Your task to perform on an android device: change keyboard looks Image 0: 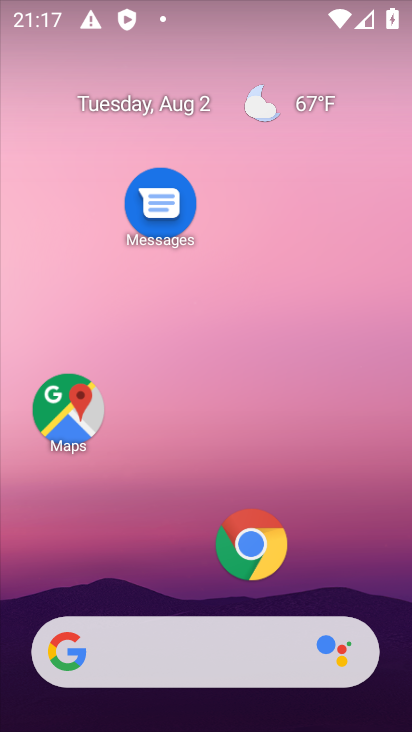
Step 0: drag from (180, 577) to (200, 213)
Your task to perform on an android device: change keyboard looks Image 1: 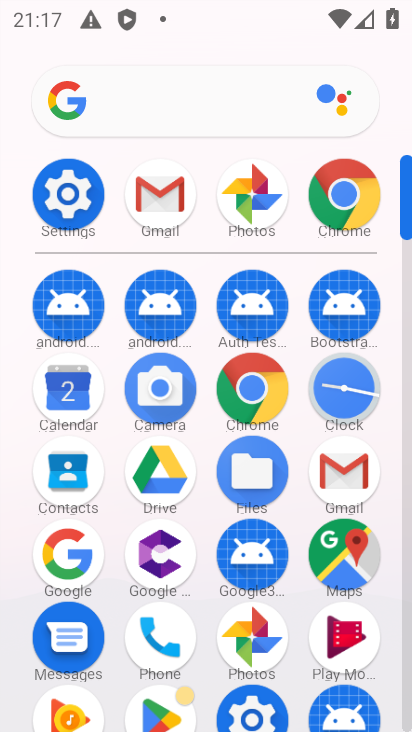
Step 1: click (72, 215)
Your task to perform on an android device: change keyboard looks Image 2: 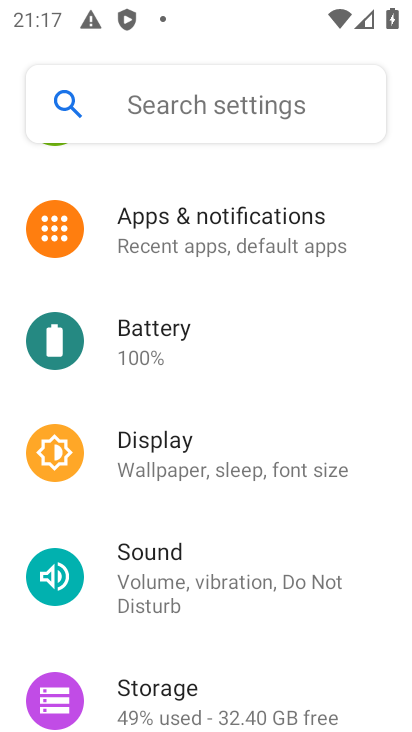
Step 2: drag from (188, 648) to (211, 245)
Your task to perform on an android device: change keyboard looks Image 3: 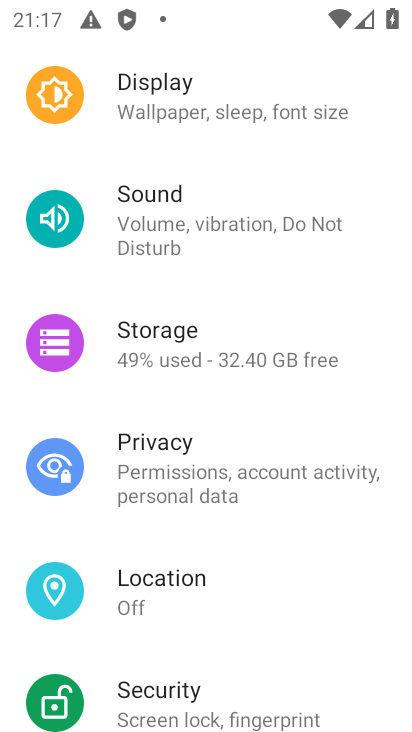
Step 3: drag from (252, 615) to (234, 251)
Your task to perform on an android device: change keyboard looks Image 4: 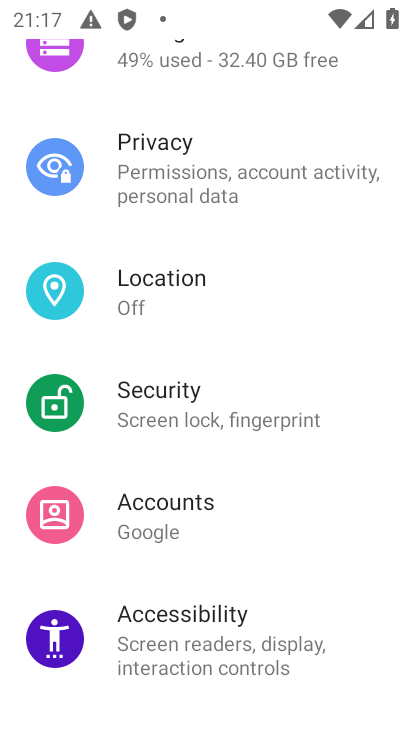
Step 4: drag from (189, 645) to (201, 319)
Your task to perform on an android device: change keyboard looks Image 5: 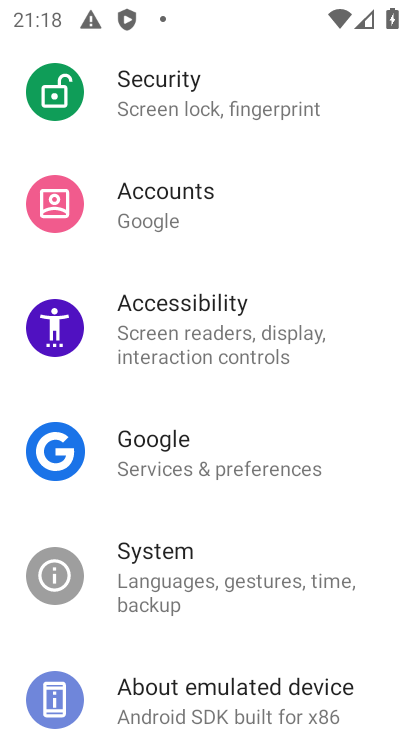
Step 5: drag from (196, 684) to (205, 321)
Your task to perform on an android device: change keyboard looks Image 6: 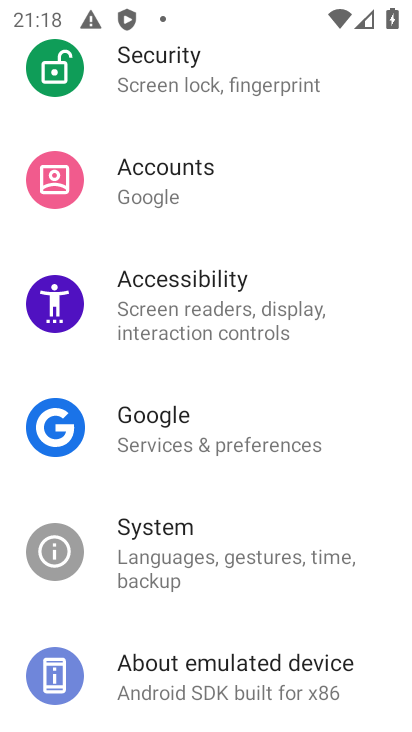
Step 6: click (165, 547)
Your task to perform on an android device: change keyboard looks Image 7: 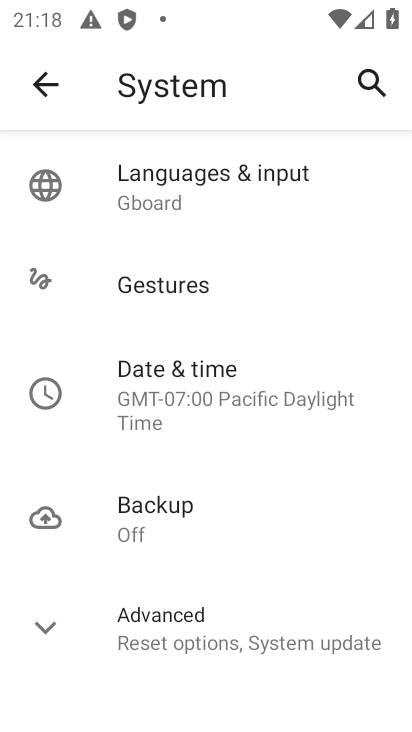
Step 7: drag from (182, 640) to (219, 312)
Your task to perform on an android device: change keyboard looks Image 8: 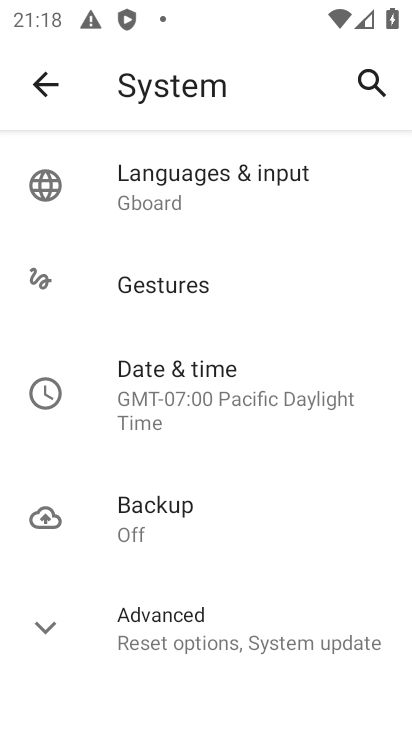
Step 8: drag from (193, 652) to (238, 289)
Your task to perform on an android device: change keyboard looks Image 9: 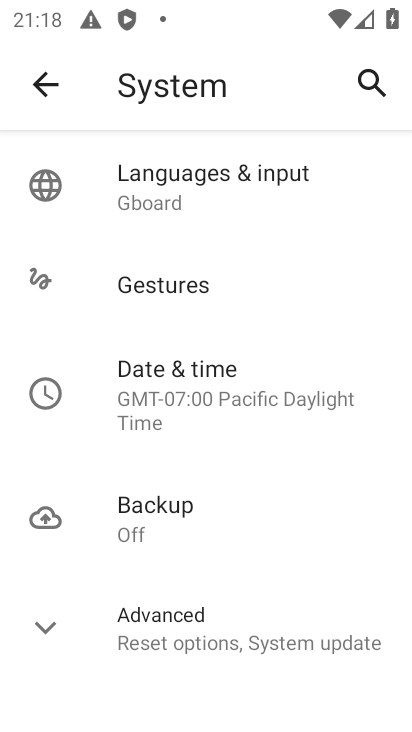
Step 9: click (192, 201)
Your task to perform on an android device: change keyboard looks Image 10: 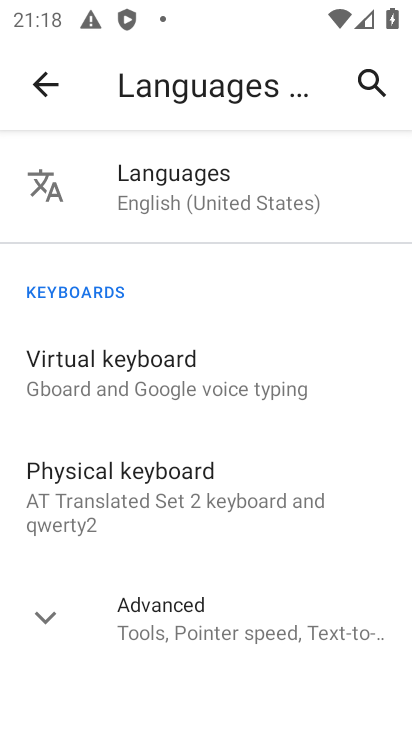
Step 10: click (137, 357)
Your task to perform on an android device: change keyboard looks Image 11: 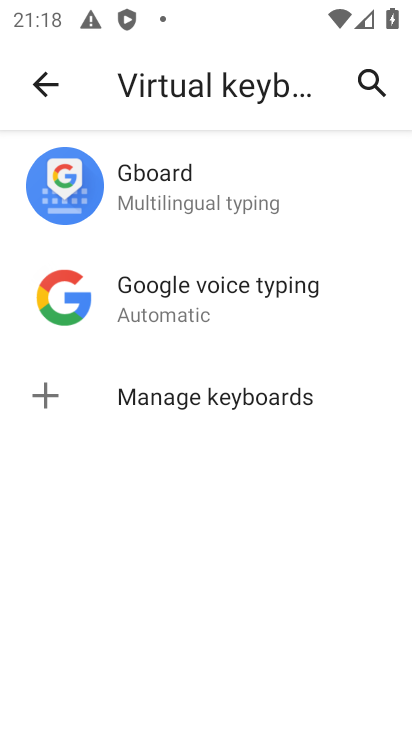
Step 11: click (127, 202)
Your task to perform on an android device: change keyboard looks Image 12: 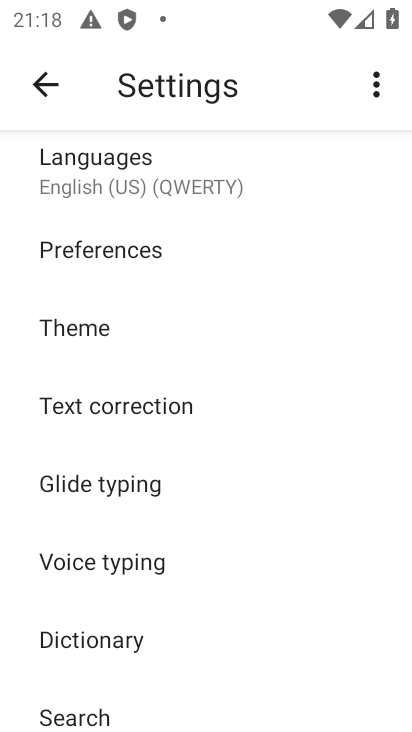
Step 12: click (112, 329)
Your task to perform on an android device: change keyboard looks Image 13: 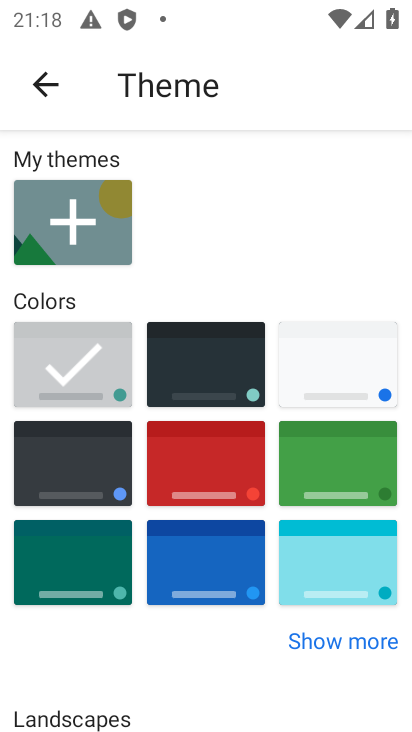
Step 13: click (209, 372)
Your task to perform on an android device: change keyboard looks Image 14: 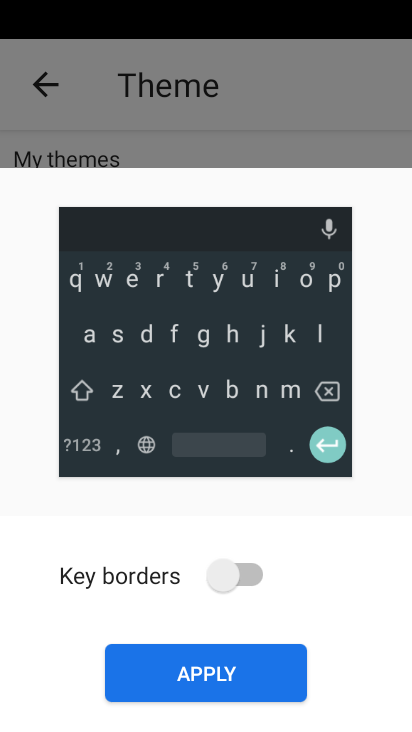
Step 14: click (235, 696)
Your task to perform on an android device: change keyboard looks Image 15: 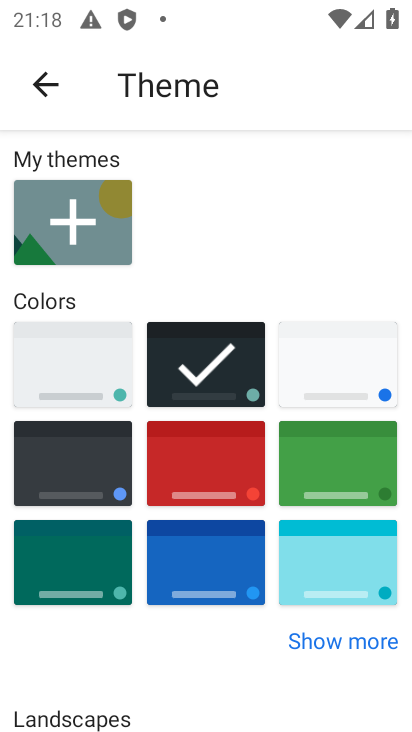
Step 15: task complete